Your task to perform on an android device: clear all cookies in the chrome app Image 0: 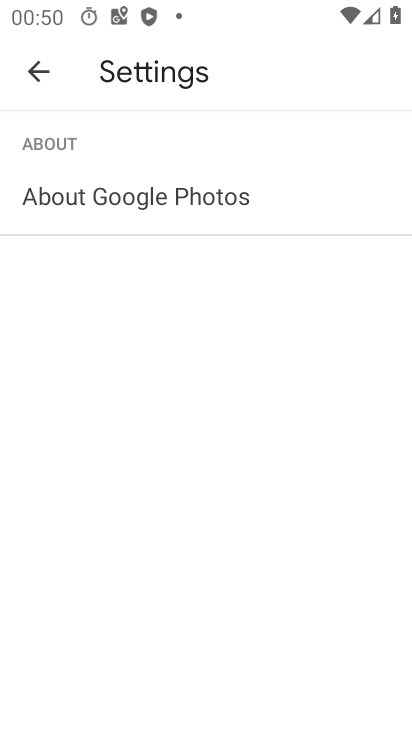
Step 0: press home button
Your task to perform on an android device: clear all cookies in the chrome app Image 1: 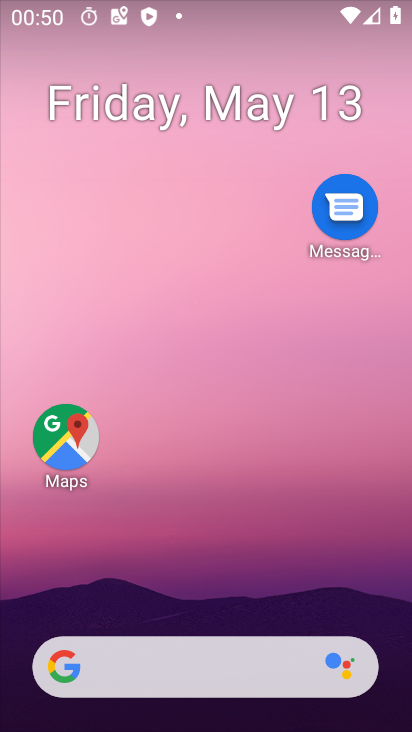
Step 1: drag from (298, 569) to (230, 25)
Your task to perform on an android device: clear all cookies in the chrome app Image 2: 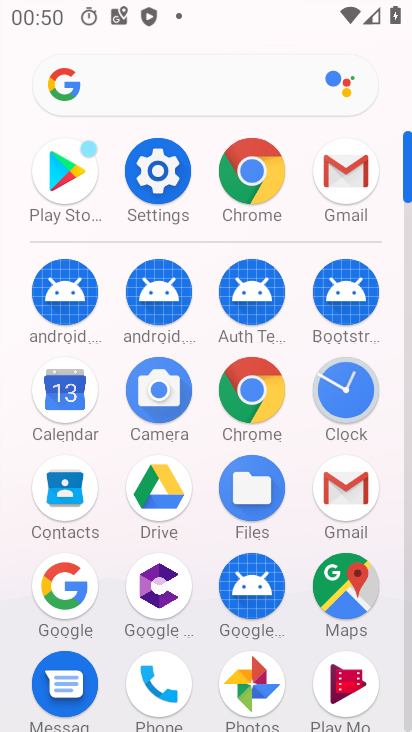
Step 2: click (245, 402)
Your task to perform on an android device: clear all cookies in the chrome app Image 3: 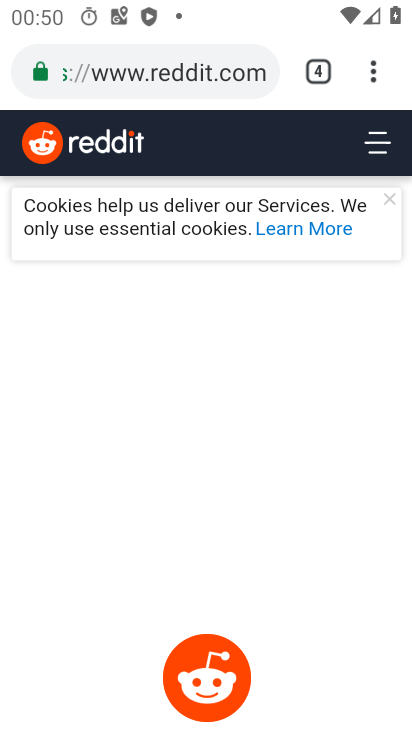
Step 3: drag from (375, 57) to (167, 551)
Your task to perform on an android device: clear all cookies in the chrome app Image 4: 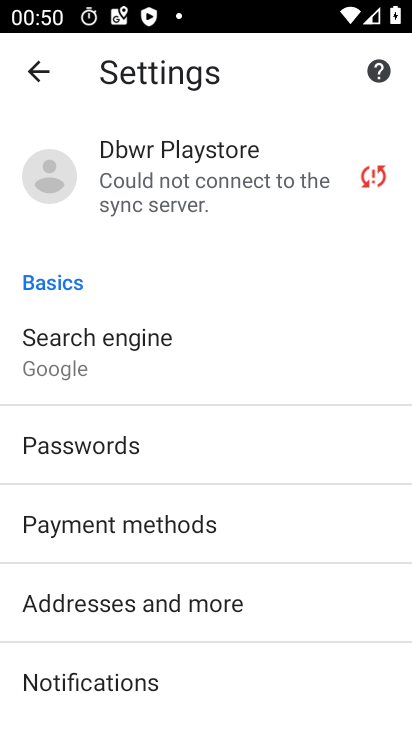
Step 4: drag from (210, 601) to (257, 183)
Your task to perform on an android device: clear all cookies in the chrome app Image 5: 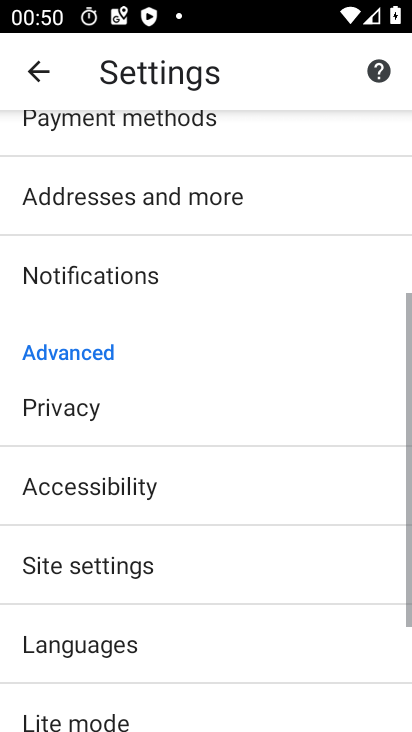
Step 5: drag from (284, 448) to (197, 51)
Your task to perform on an android device: clear all cookies in the chrome app Image 6: 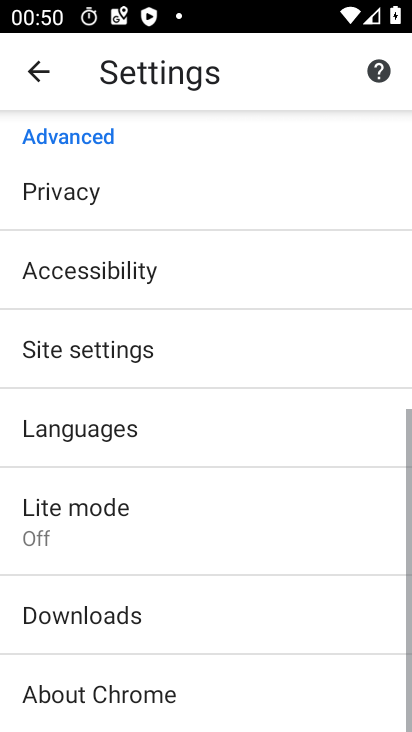
Step 6: drag from (255, 498) to (258, 223)
Your task to perform on an android device: clear all cookies in the chrome app Image 7: 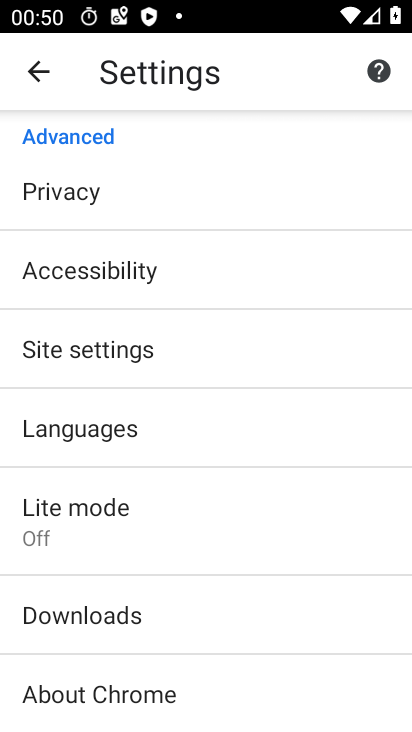
Step 7: click (98, 195)
Your task to perform on an android device: clear all cookies in the chrome app Image 8: 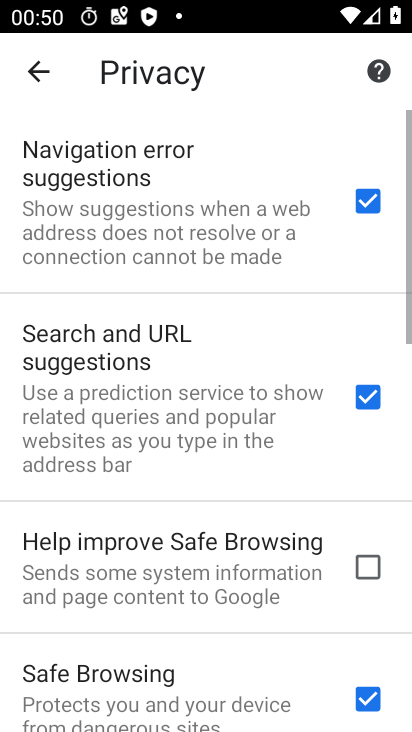
Step 8: drag from (152, 491) to (134, 207)
Your task to perform on an android device: clear all cookies in the chrome app Image 9: 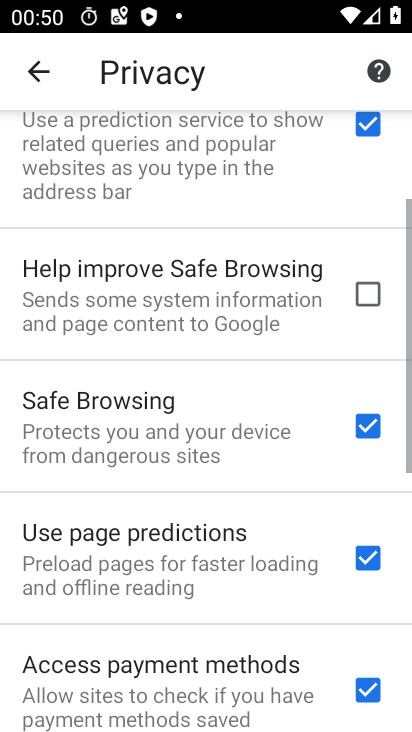
Step 9: drag from (186, 584) to (156, 336)
Your task to perform on an android device: clear all cookies in the chrome app Image 10: 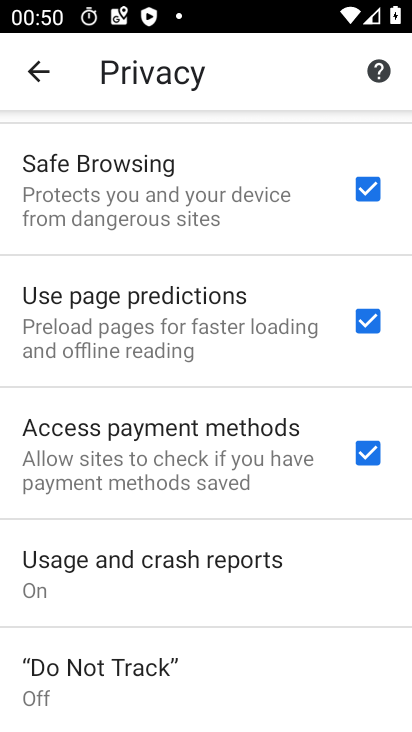
Step 10: drag from (171, 577) to (183, 364)
Your task to perform on an android device: clear all cookies in the chrome app Image 11: 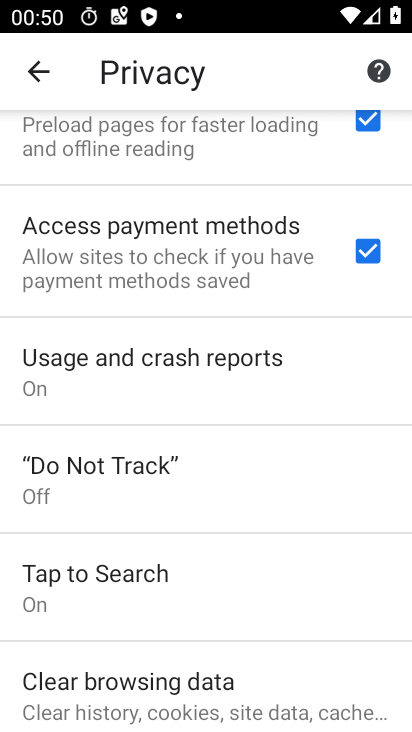
Step 11: click (120, 702)
Your task to perform on an android device: clear all cookies in the chrome app Image 12: 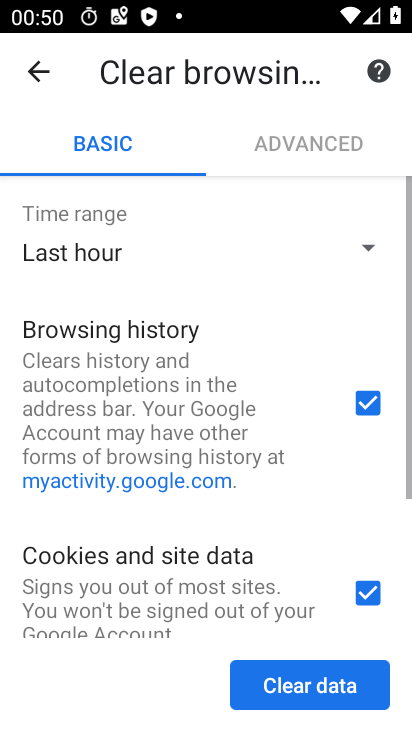
Step 12: click (286, 703)
Your task to perform on an android device: clear all cookies in the chrome app Image 13: 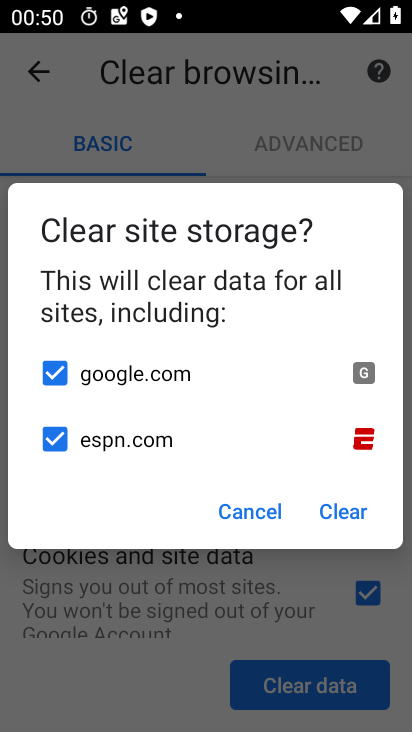
Step 13: click (325, 494)
Your task to perform on an android device: clear all cookies in the chrome app Image 14: 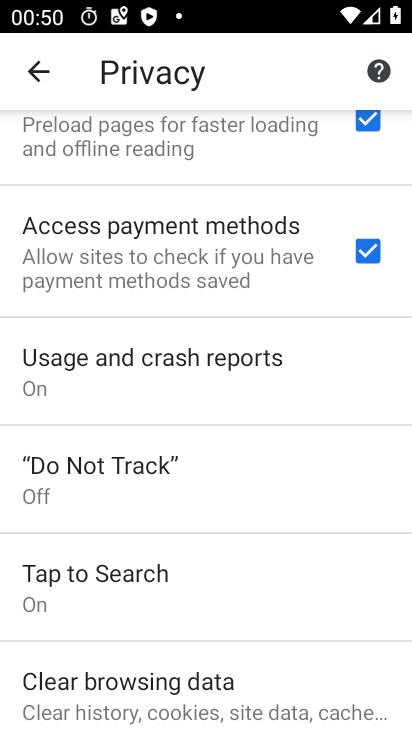
Step 14: task complete